Your task to perform on an android device: Show me the alarms in the clock app Image 0: 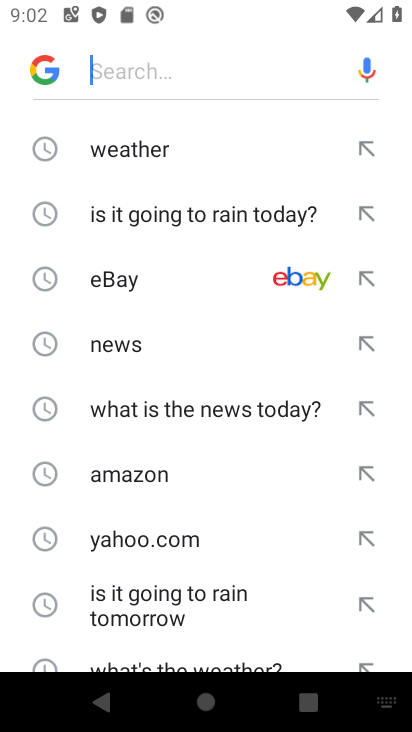
Step 0: press home button
Your task to perform on an android device: Show me the alarms in the clock app Image 1: 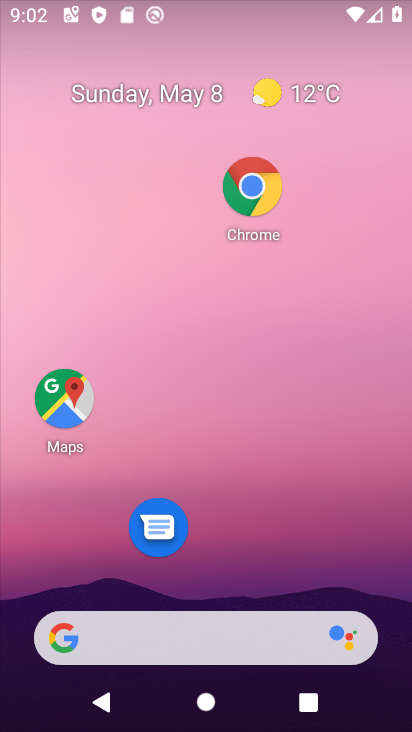
Step 1: drag from (257, 528) to (330, 271)
Your task to perform on an android device: Show me the alarms in the clock app Image 2: 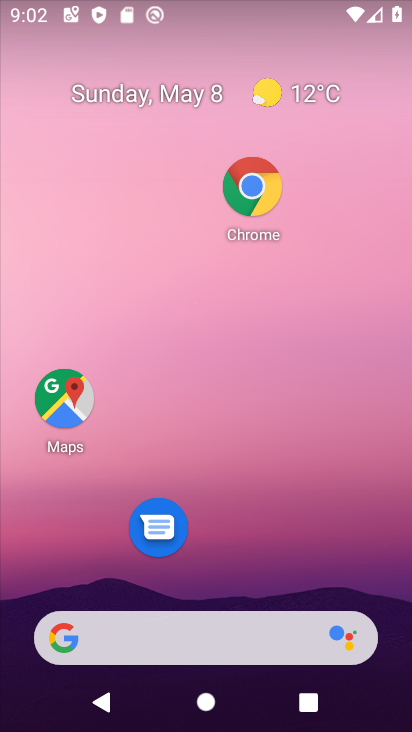
Step 2: drag from (250, 600) to (283, 336)
Your task to perform on an android device: Show me the alarms in the clock app Image 3: 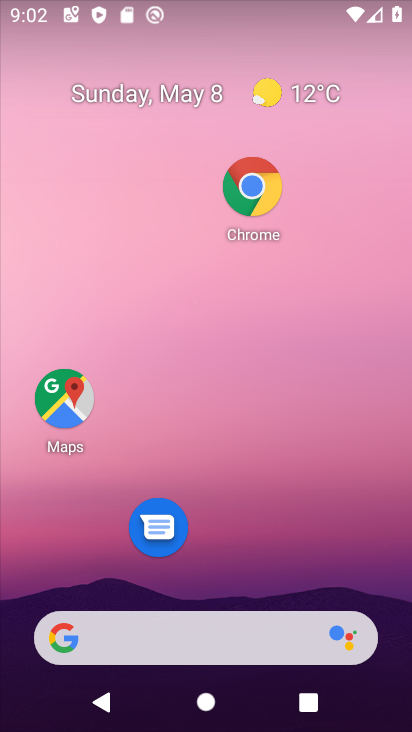
Step 3: drag from (293, 484) to (336, 243)
Your task to perform on an android device: Show me the alarms in the clock app Image 4: 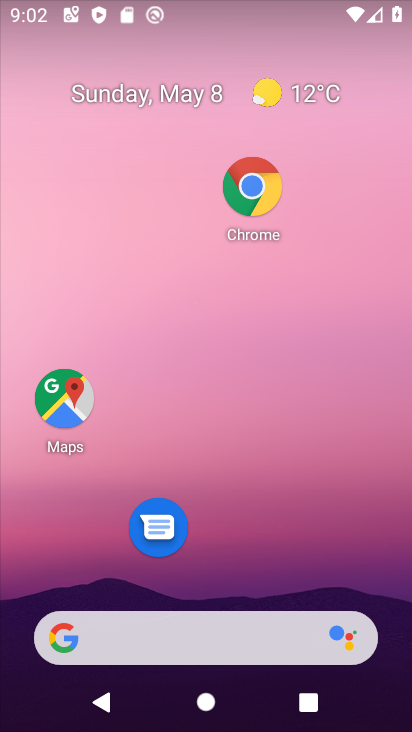
Step 4: drag from (274, 560) to (315, 167)
Your task to perform on an android device: Show me the alarms in the clock app Image 5: 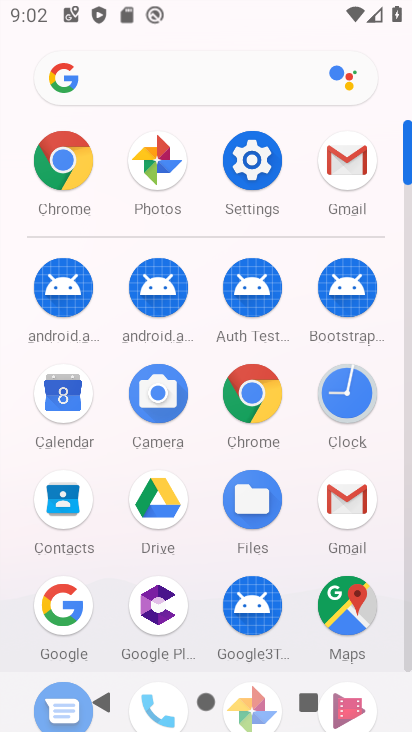
Step 5: click (341, 398)
Your task to perform on an android device: Show me the alarms in the clock app Image 6: 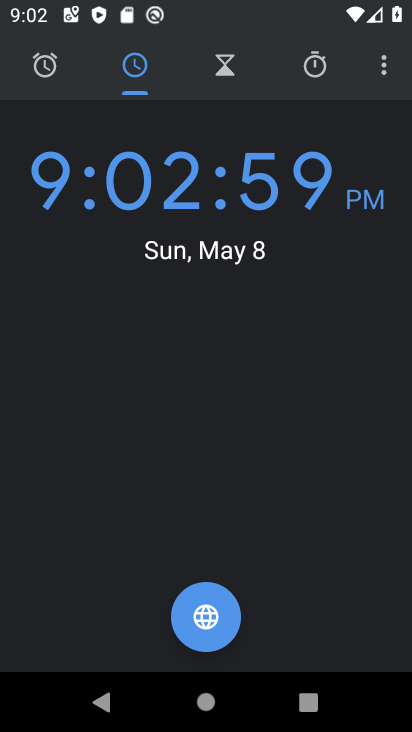
Step 6: click (43, 69)
Your task to perform on an android device: Show me the alarms in the clock app Image 7: 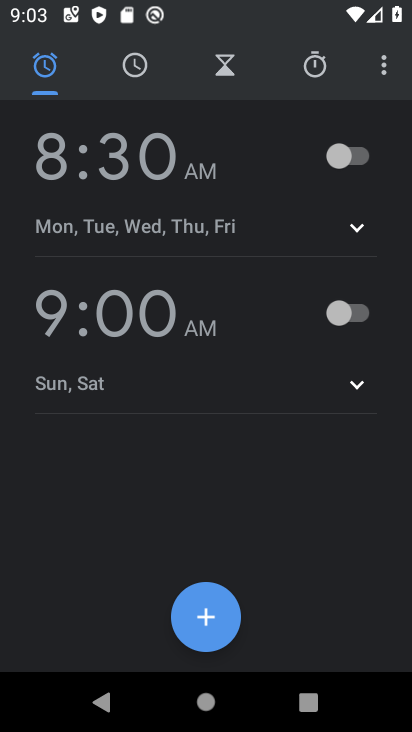
Step 7: task complete